Your task to perform on an android device: Set the phone to "Do not disturb". Image 0: 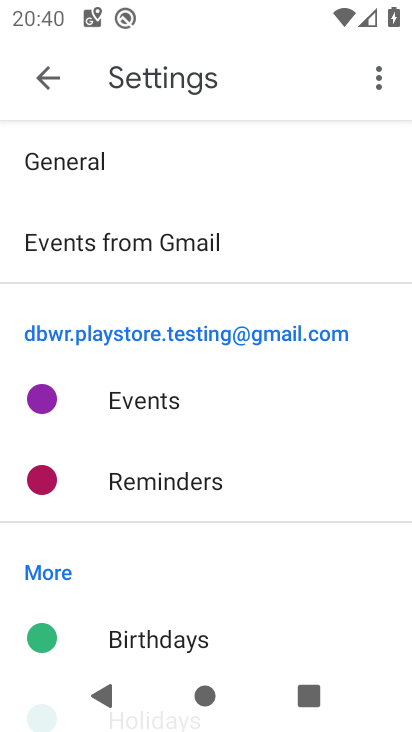
Step 0: press home button
Your task to perform on an android device: Set the phone to "Do not disturb". Image 1: 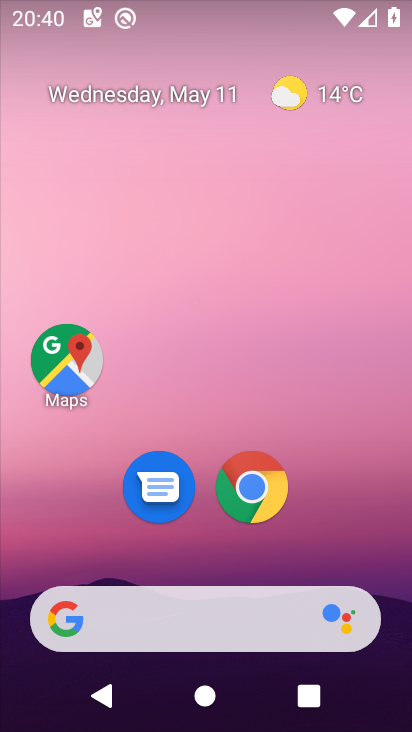
Step 1: drag from (256, 565) to (397, 93)
Your task to perform on an android device: Set the phone to "Do not disturb". Image 2: 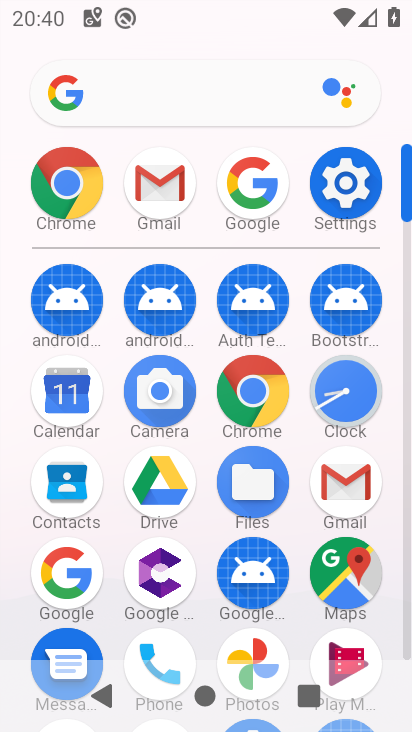
Step 2: click (359, 184)
Your task to perform on an android device: Set the phone to "Do not disturb". Image 3: 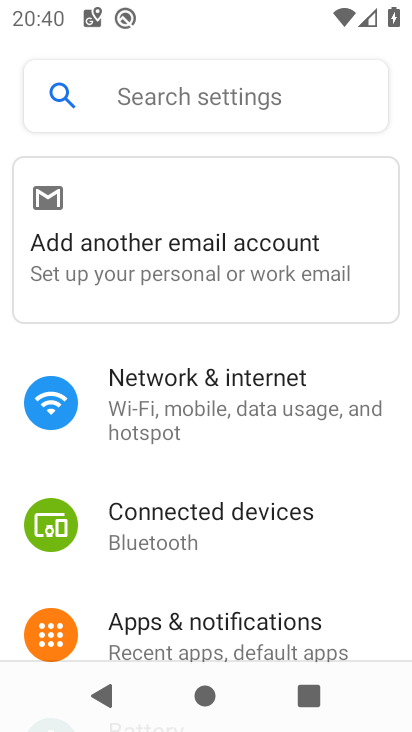
Step 3: drag from (105, 631) to (193, 271)
Your task to perform on an android device: Set the phone to "Do not disturb". Image 4: 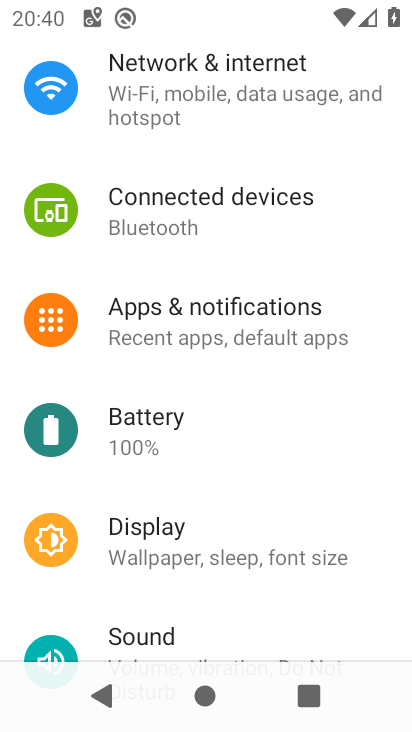
Step 4: drag from (146, 541) to (221, 284)
Your task to perform on an android device: Set the phone to "Do not disturb". Image 5: 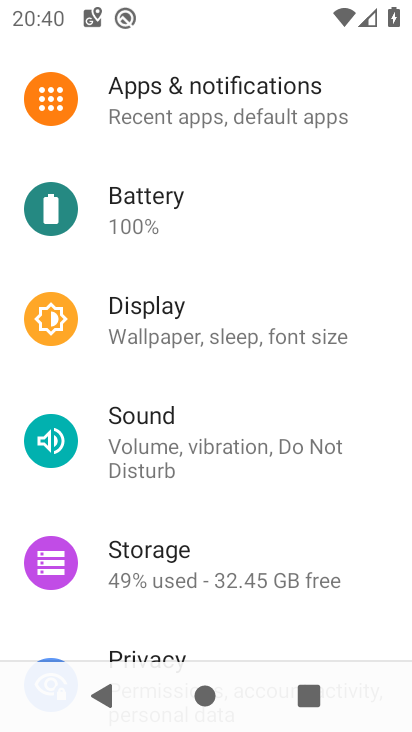
Step 5: click (171, 440)
Your task to perform on an android device: Set the phone to "Do not disturb". Image 6: 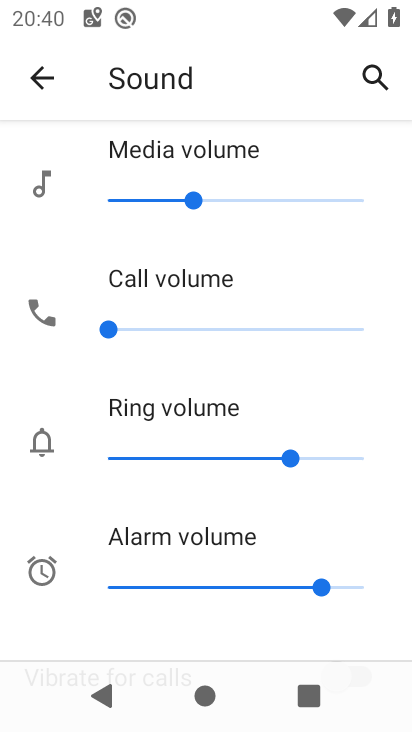
Step 6: drag from (187, 644) to (280, 270)
Your task to perform on an android device: Set the phone to "Do not disturb". Image 7: 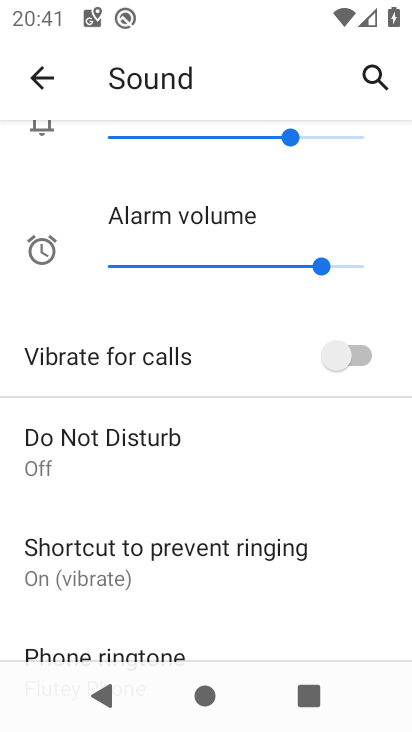
Step 7: click (149, 424)
Your task to perform on an android device: Set the phone to "Do not disturb". Image 8: 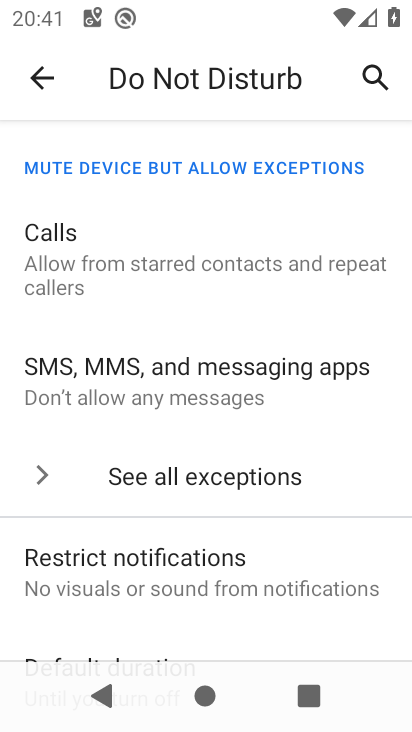
Step 8: drag from (185, 625) to (319, 164)
Your task to perform on an android device: Set the phone to "Do not disturb". Image 9: 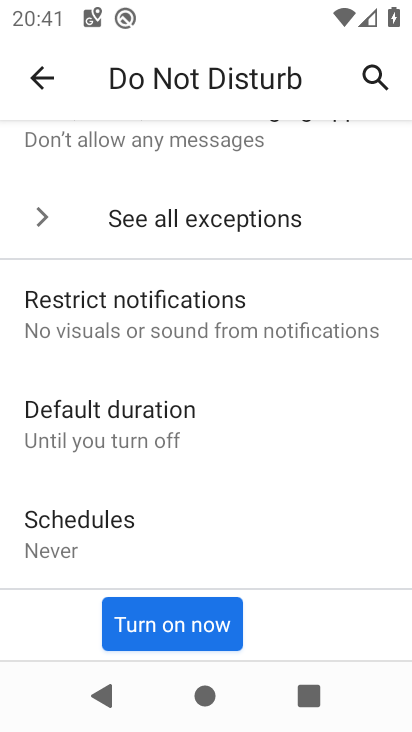
Step 9: click (166, 639)
Your task to perform on an android device: Set the phone to "Do not disturb". Image 10: 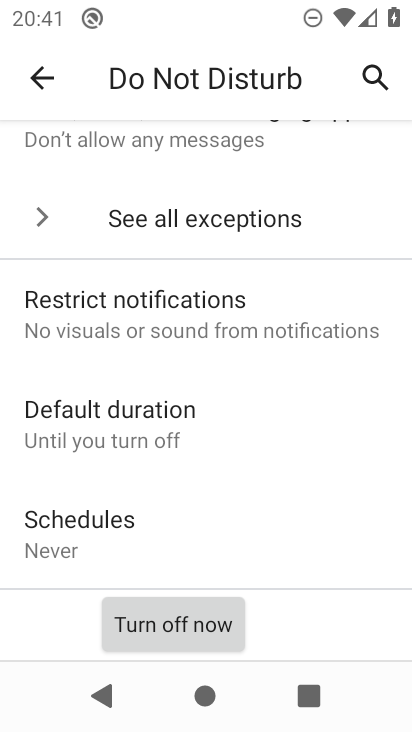
Step 10: task complete